Your task to perform on an android device: set the timer Image 0: 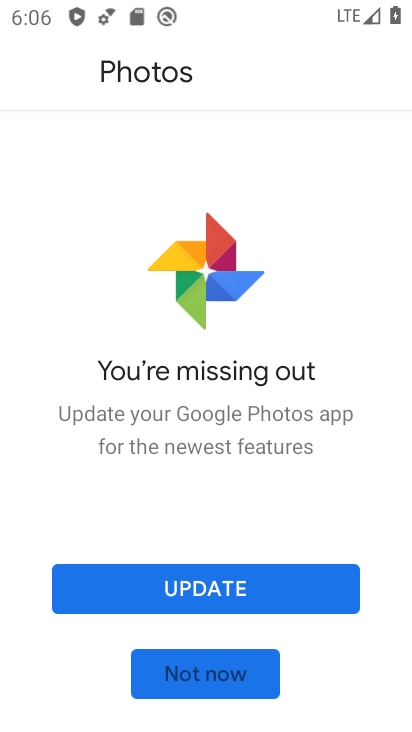
Step 0: press home button
Your task to perform on an android device: set the timer Image 1: 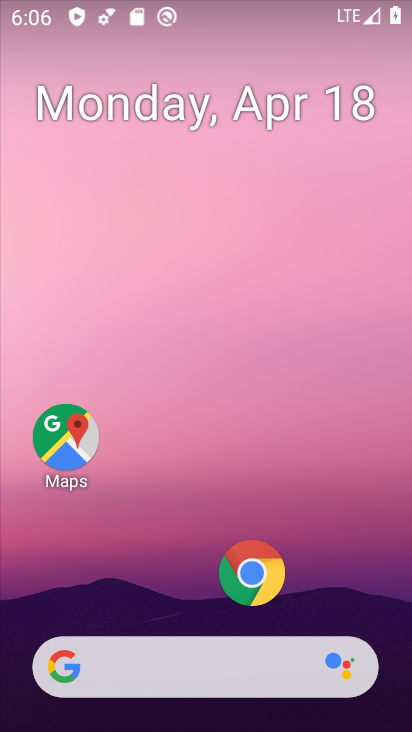
Step 1: drag from (164, 561) to (332, 13)
Your task to perform on an android device: set the timer Image 2: 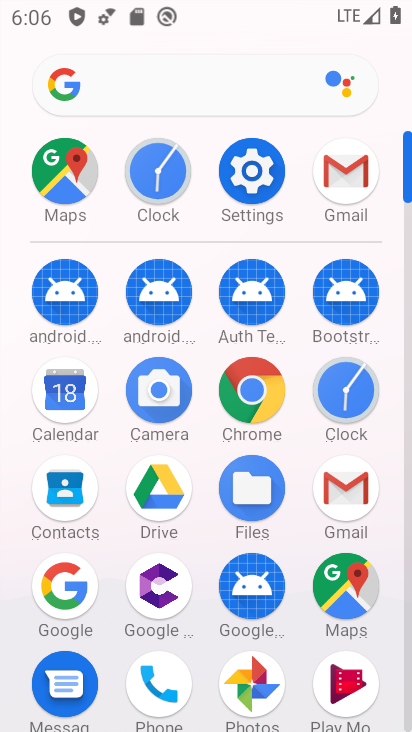
Step 2: click (156, 176)
Your task to perform on an android device: set the timer Image 3: 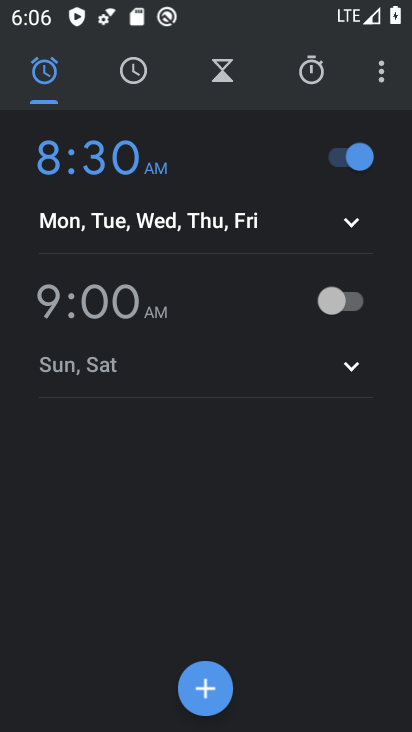
Step 3: click (224, 70)
Your task to perform on an android device: set the timer Image 4: 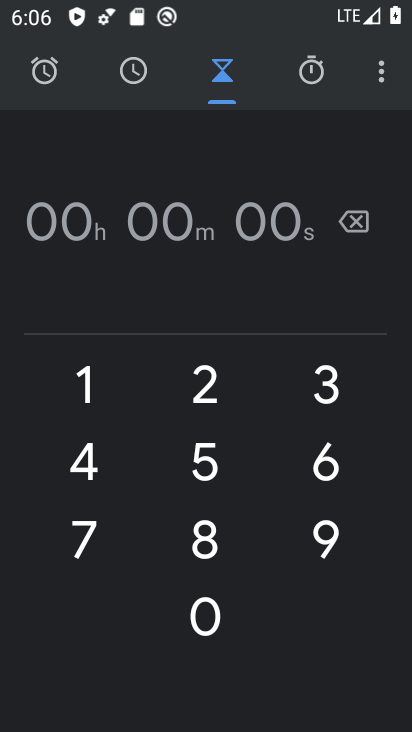
Step 4: click (94, 466)
Your task to perform on an android device: set the timer Image 5: 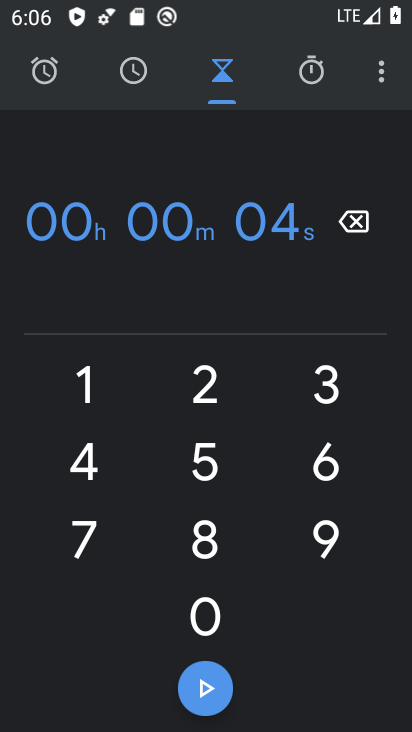
Step 5: click (212, 471)
Your task to perform on an android device: set the timer Image 6: 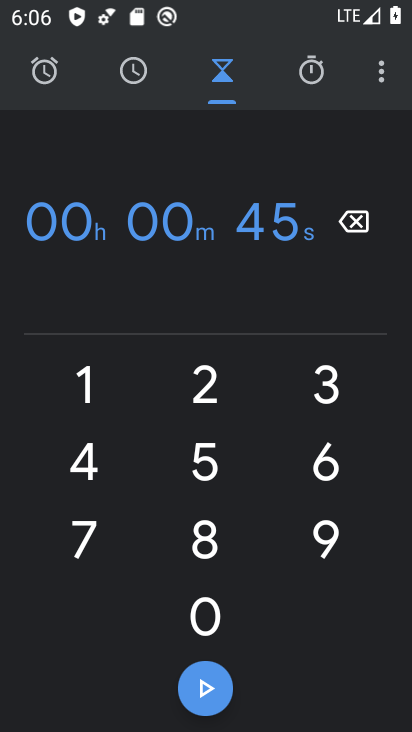
Step 6: click (329, 537)
Your task to perform on an android device: set the timer Image 7: 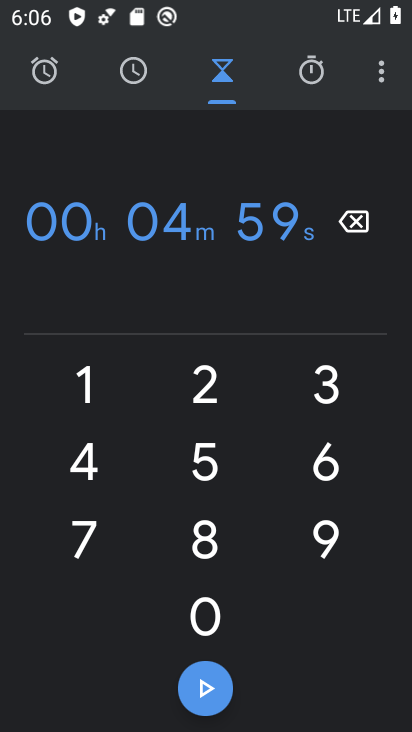
Step 7: click (207, 675)
Your task to perform on an android device: set the timer Image 8: 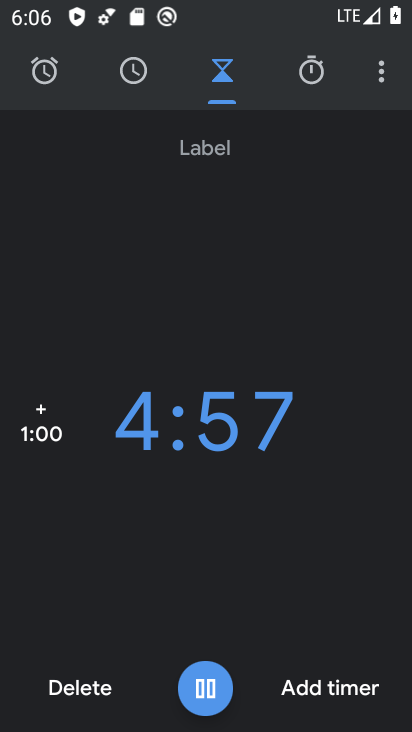
Step 8: task complete